Your task to perform on an android device: toggle data saver in the chrome app Image 0: 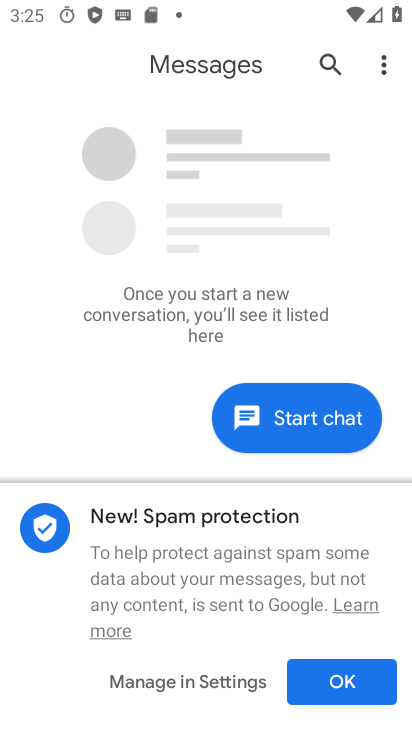
Step 0: press home button
Your task to perform on an android device: toggle data saver in the chrome app Image 1: 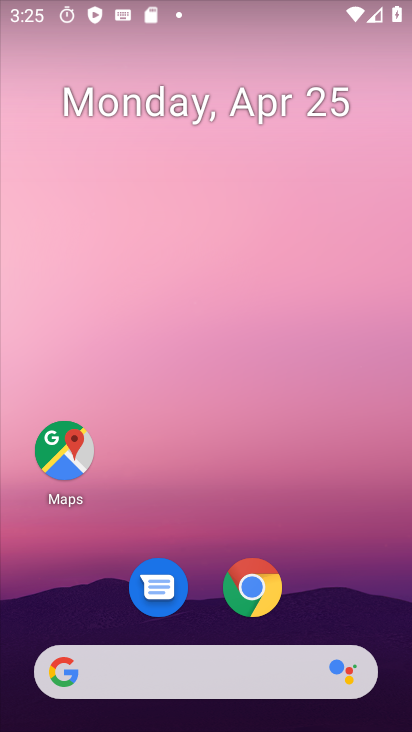
Step 1: drag from (334, 569) to (321, 119)
Your task to perform on an android device: toggle data saver in the chrome app Image 2: 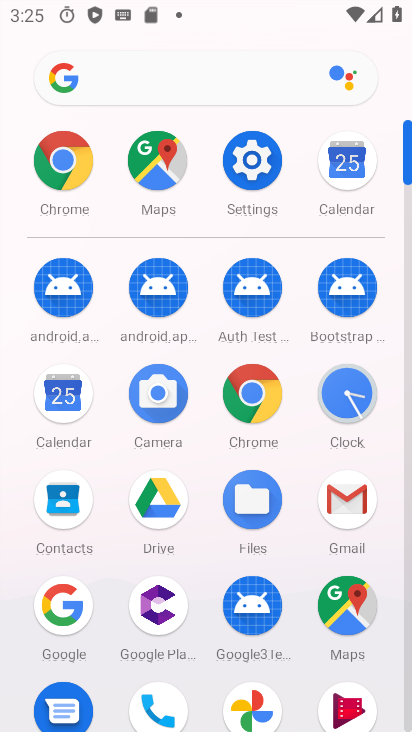
Step 2: click (263, 400)
Your task to perform on an android device: toggle data saver in the chrome app Image 3: 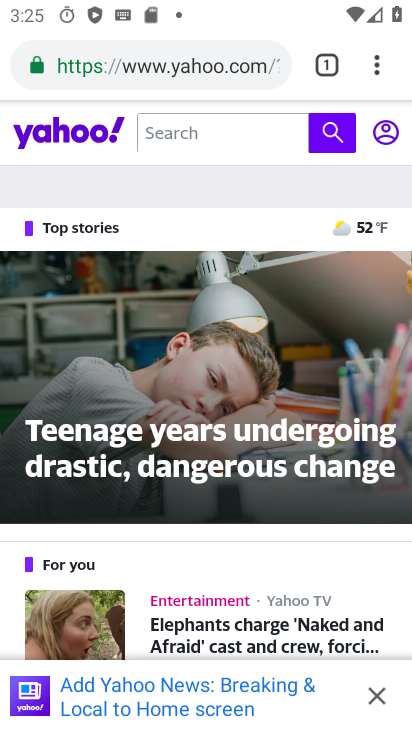
Step 3: drag from (379, 59) to (240, 630)
Your task to perform on an android device: toggle data saver in the chrome app Image 4: 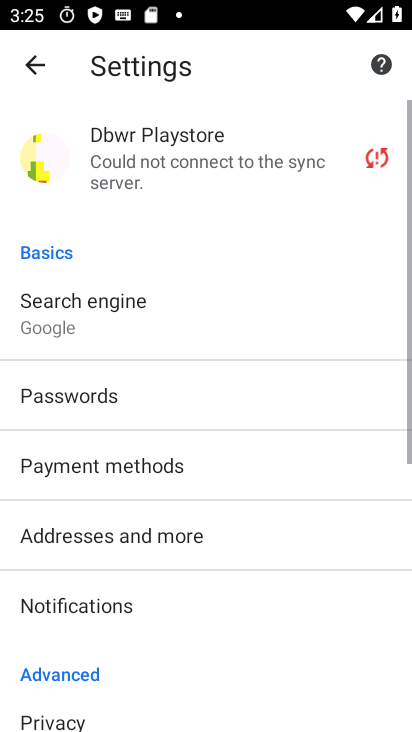
Step 4: drag from (238, 571) to (274, 26)
Your task to perform on an android device: toggle data saver in the chrome app Image 5: 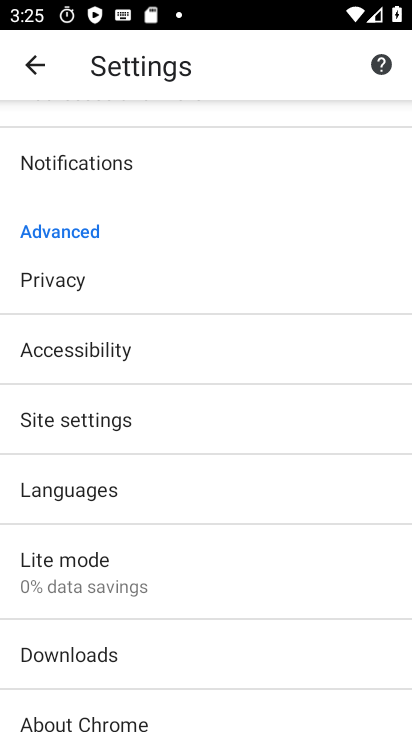
Step 5: click (110, 576)
Your task to perform on an android device: toggle data saver in the chrome app Image 6: 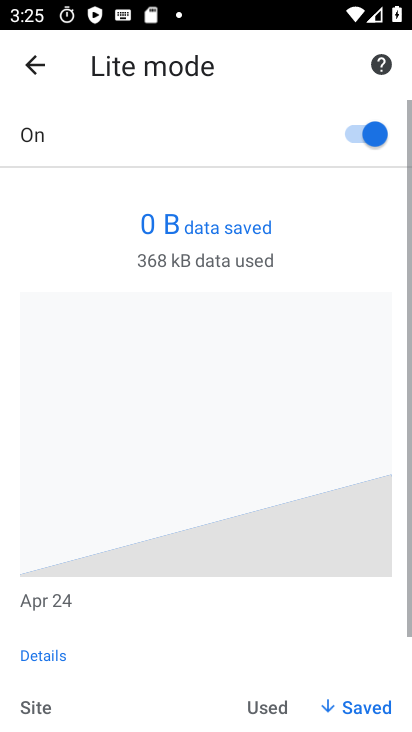
Step 6: click (350, 131)
Your task to perform on an android device: toggle data saver in the chrome app Image 7: 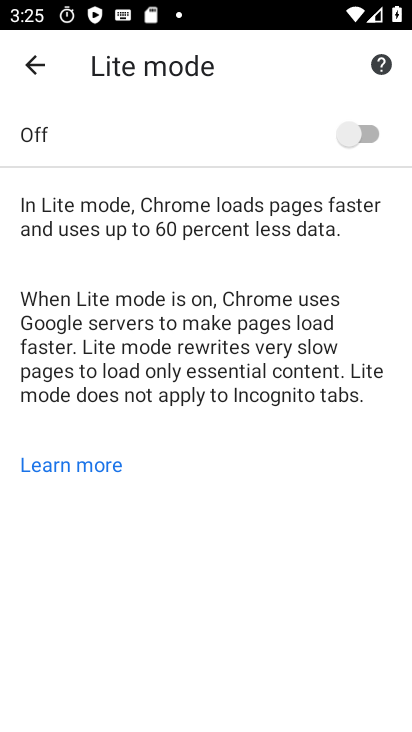
Step 7: task complete